Your task to perform on an android device: Do I have any events tomorrow? Image 0: 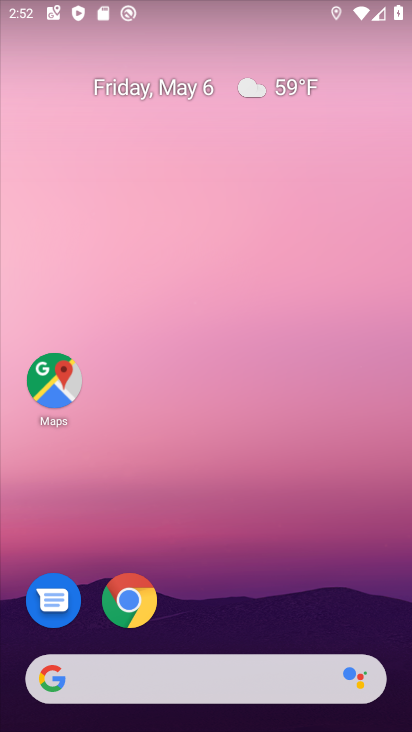
Step 0: drag from (235, 604) to (262, 54)
Your task to perform on an android device: Do I have any events tomorrow? Image 1: 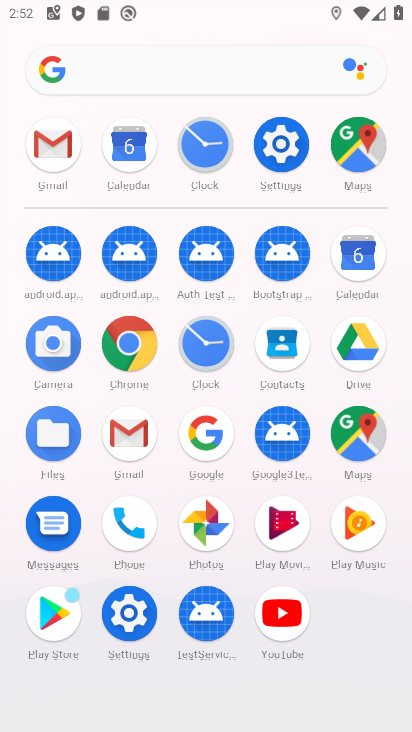
Step 1: click (357, 255)
Your task to perform on an android device: Do I have any events tomorrow? Image 2: 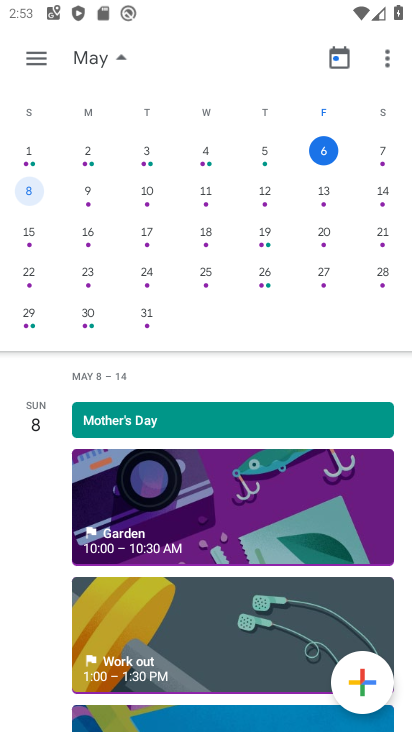
Step 2: click (146, 192)
Your task to perform on an android device: Do I have any events tomorrow? Image 3: 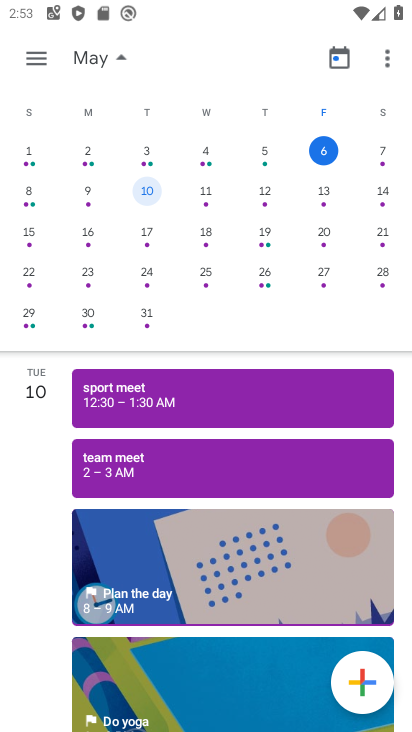
Step 3: task complete